Your task to perform on an android device: turn on wifi Image 0: 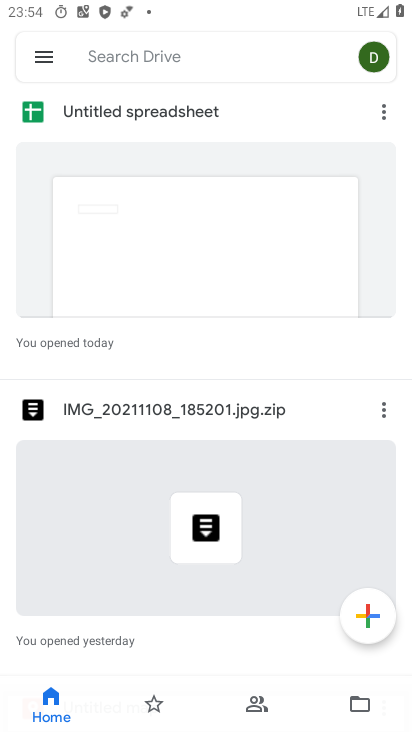
Step 0: press home button
Your task to perform on an android device: turn on wifi Image 1: 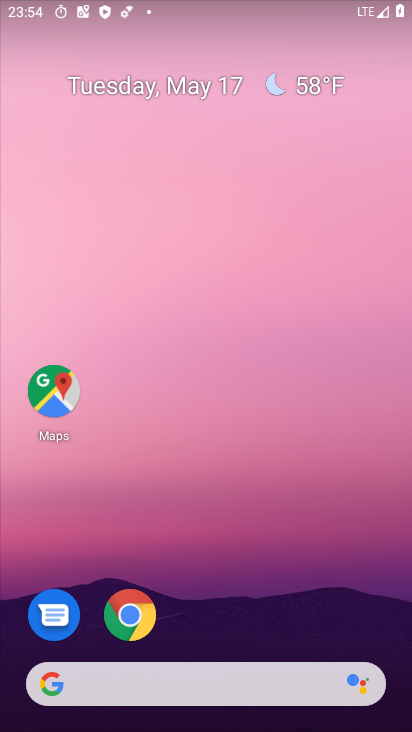
Step 1: drag from (245, 632) to (249, 247)
Your task to perform on an android device: turn on wifi Image 2: 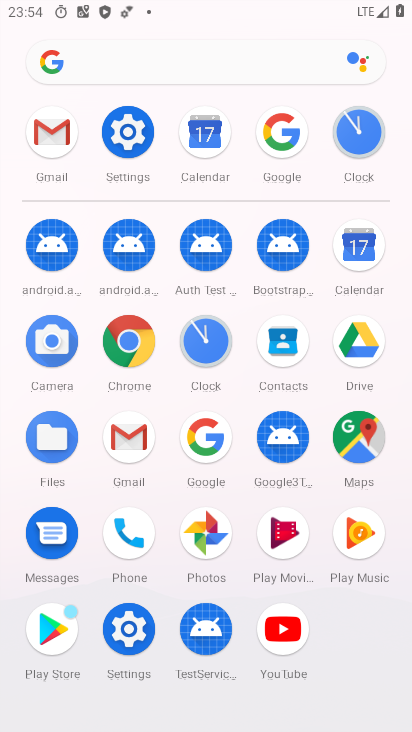
Step 2: click (115, 123)
Your task to perform on an android device: turn on wifi Image 3: 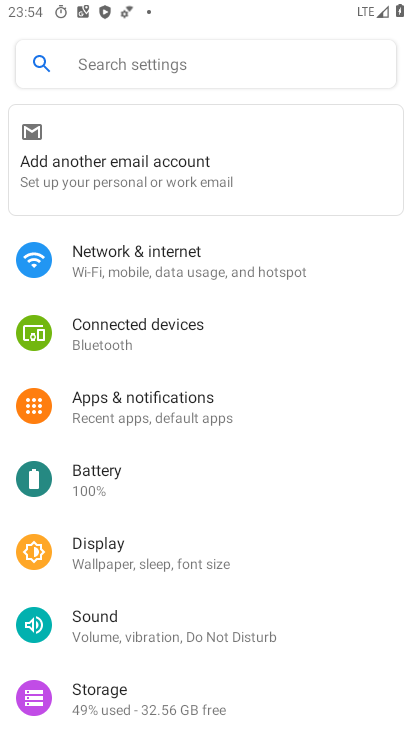
Step 3: click (115, 248)
Your task to perform on an android device: turn on wifi Image 4: 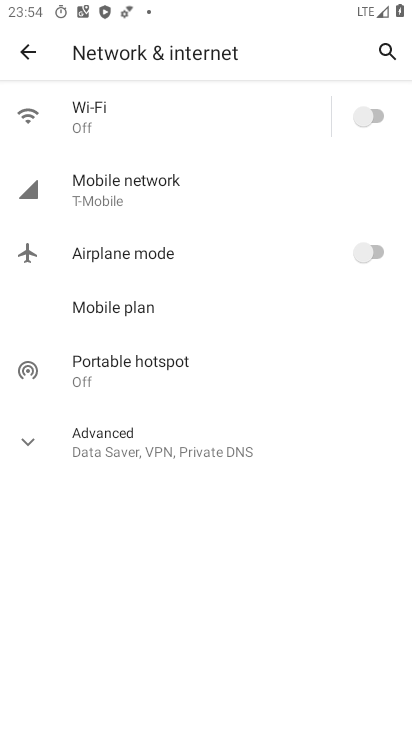
Step 4: click (116, 258)
Your task to perform on an android device: turn on wifi Image 5: 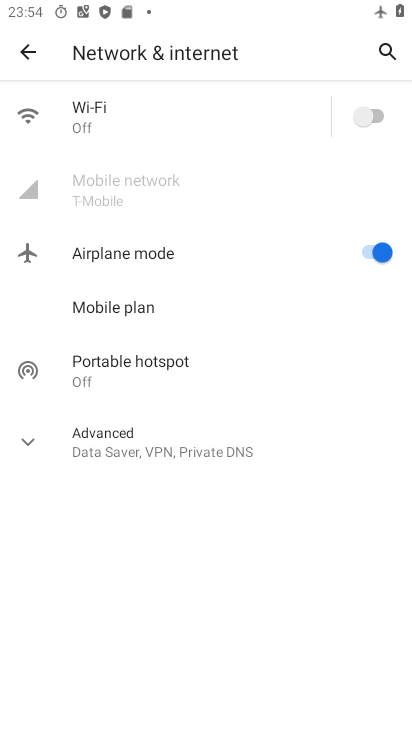
Step 5: click (381, 116)
Your task to perform on an android device: turn on wifi Image 6: 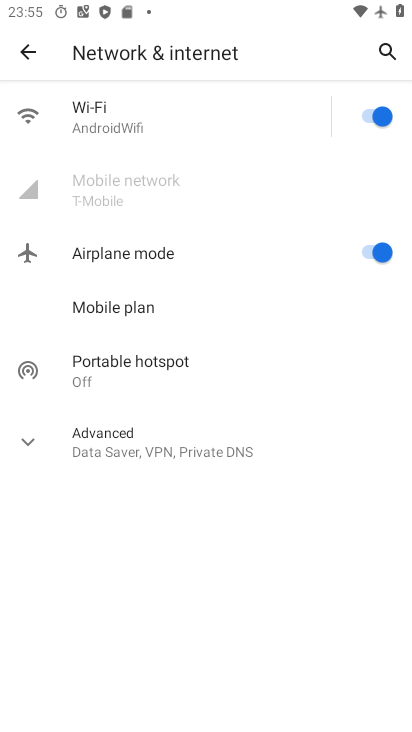
Step 6: task complete